Your task to perform on an android device: open a bookmark in the chrome app Image 0: 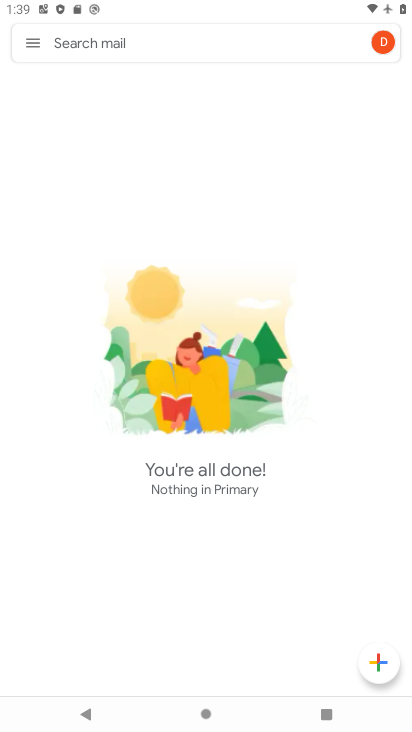
Step 0: press home button
Your task to perform on an android device: open a bookmark in the chrome app Image 1: 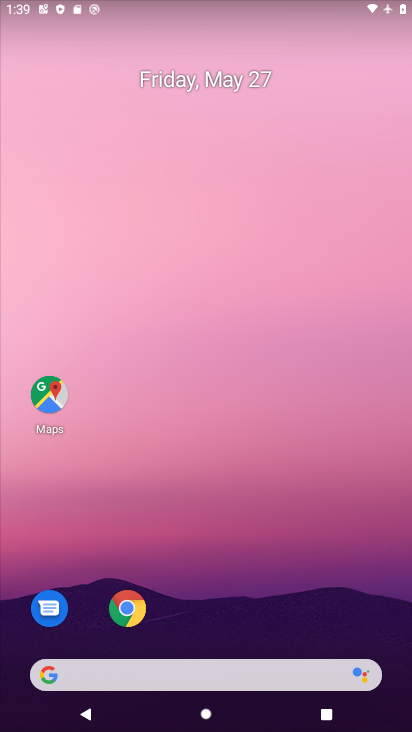
Step 1: click (127, 612)
Your task to perform on an android device: open a bookmark in the chrome app Image 2: 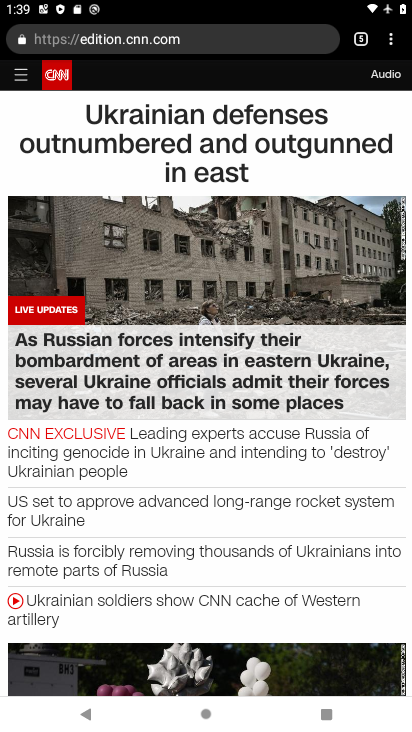
Step 2: task complete